Your task to perform on an android device: Where can I buy a nice beach blanket? Image 0: 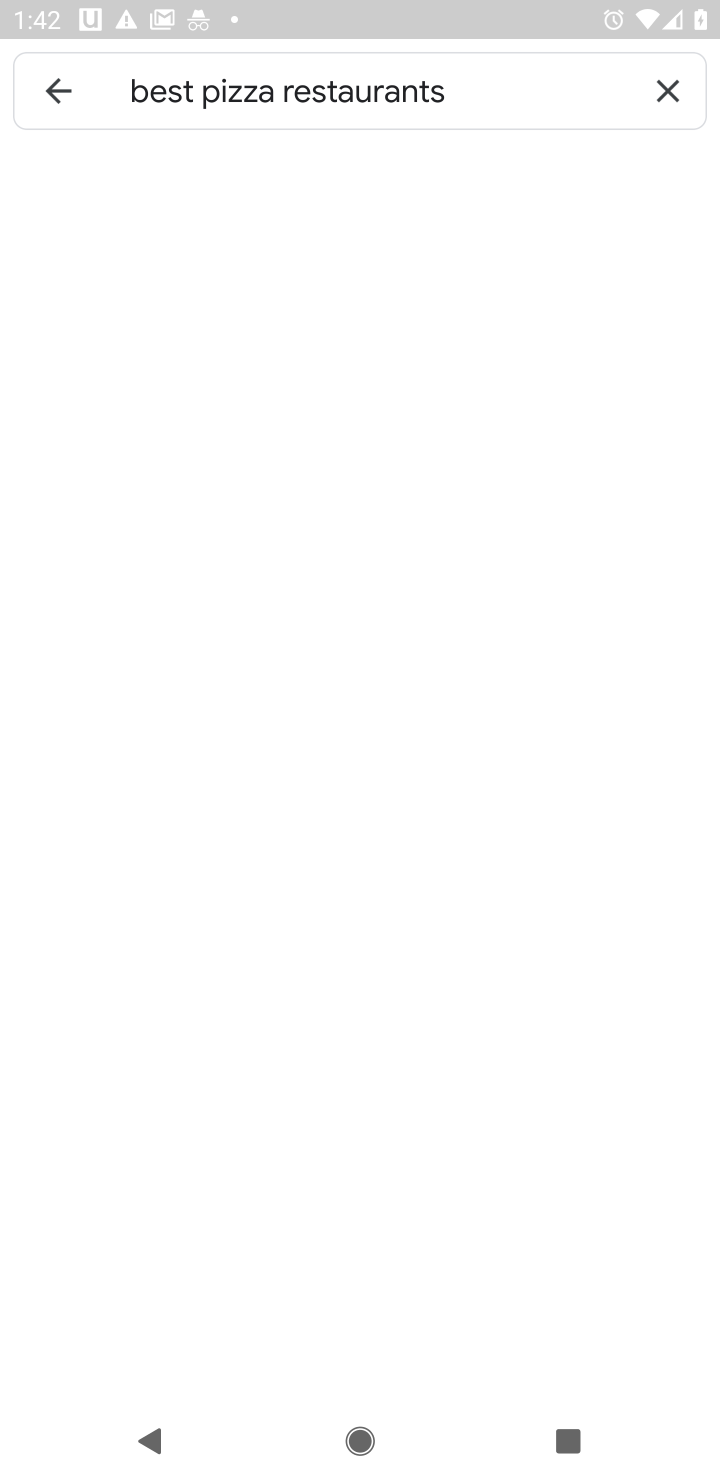
Step 0: press home button
Your task to perform on an android device: Where can I buy a nice beach blanket? Image 1: 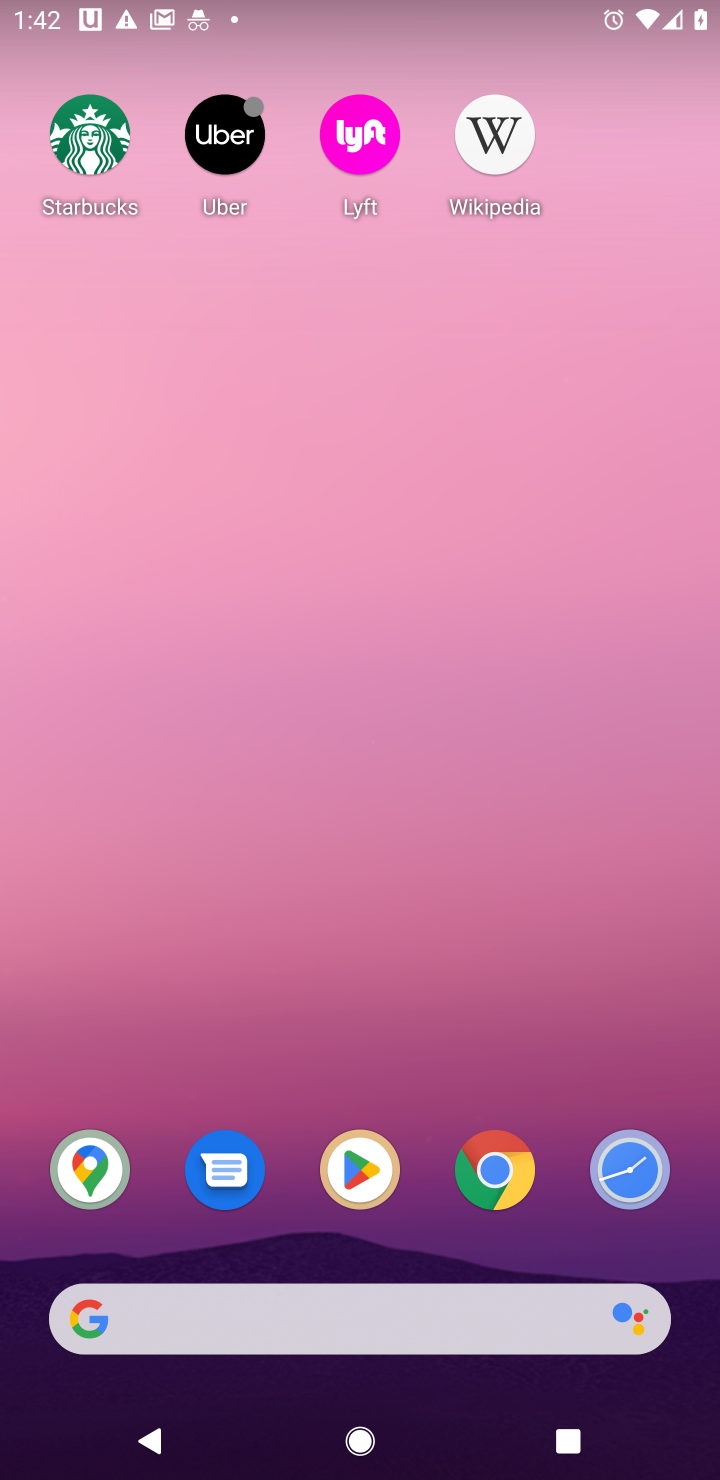
Step 1: click (498, 1183)
Your task to perform on an android device: Where can I buy a nice beach blanket? Image 2: 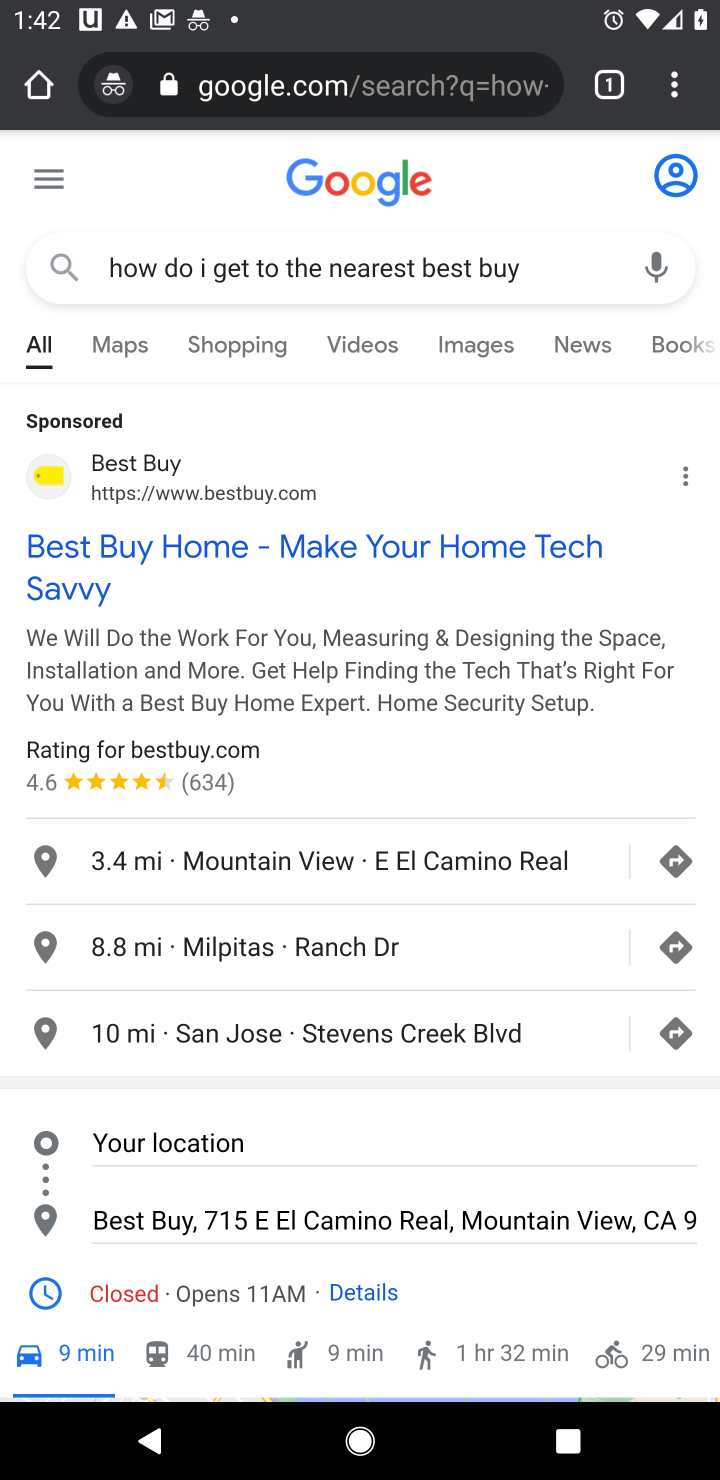
Step 2: click (443, 84)
Your task to perform on an android device: Where can I buy a nice beach blanket? Image 3: 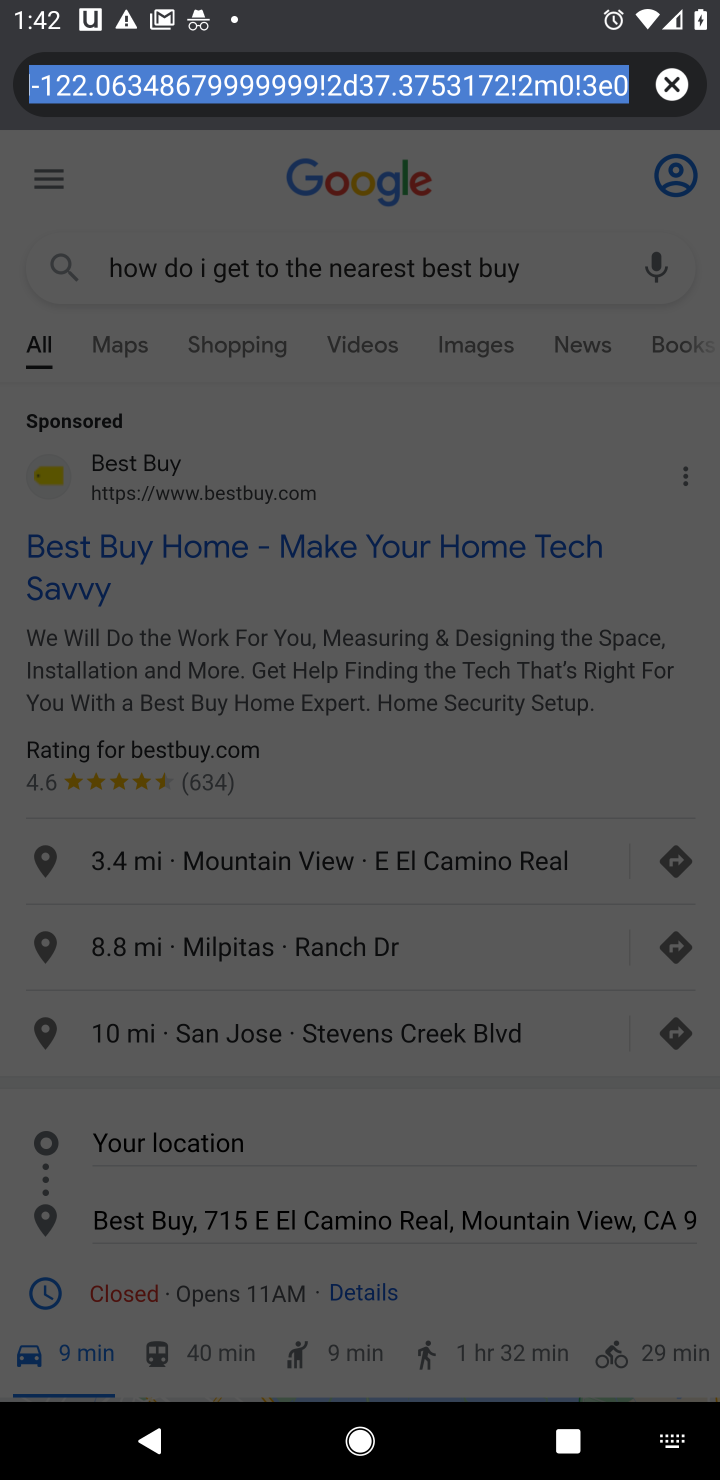
Step 3: click (666, 89)
Your task to perform on an android device: Where can I buy a nice beach blanket? Image 4: 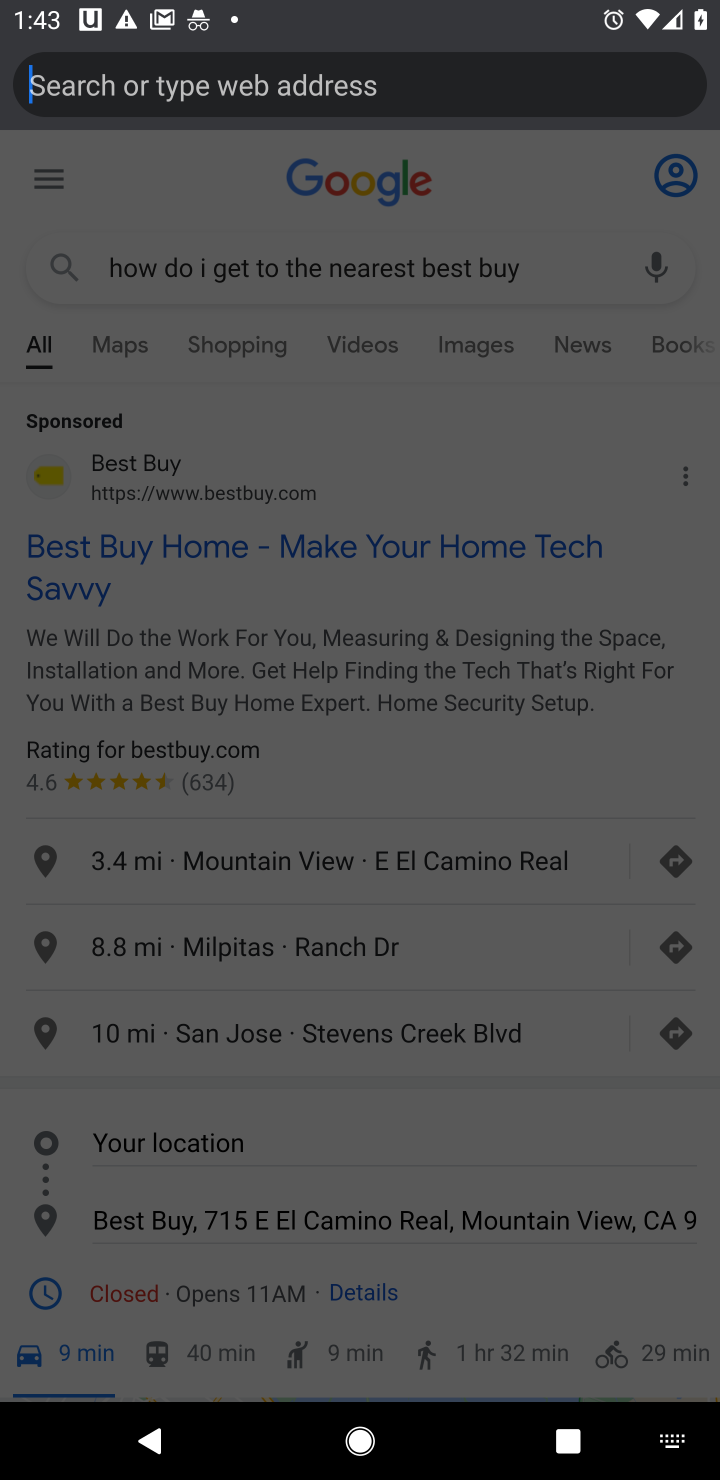
Step 4: type "where can i buy a nice beach blanket"
Your task to perform on an android device: Where can I buy a nice beach blanket? Image 5: 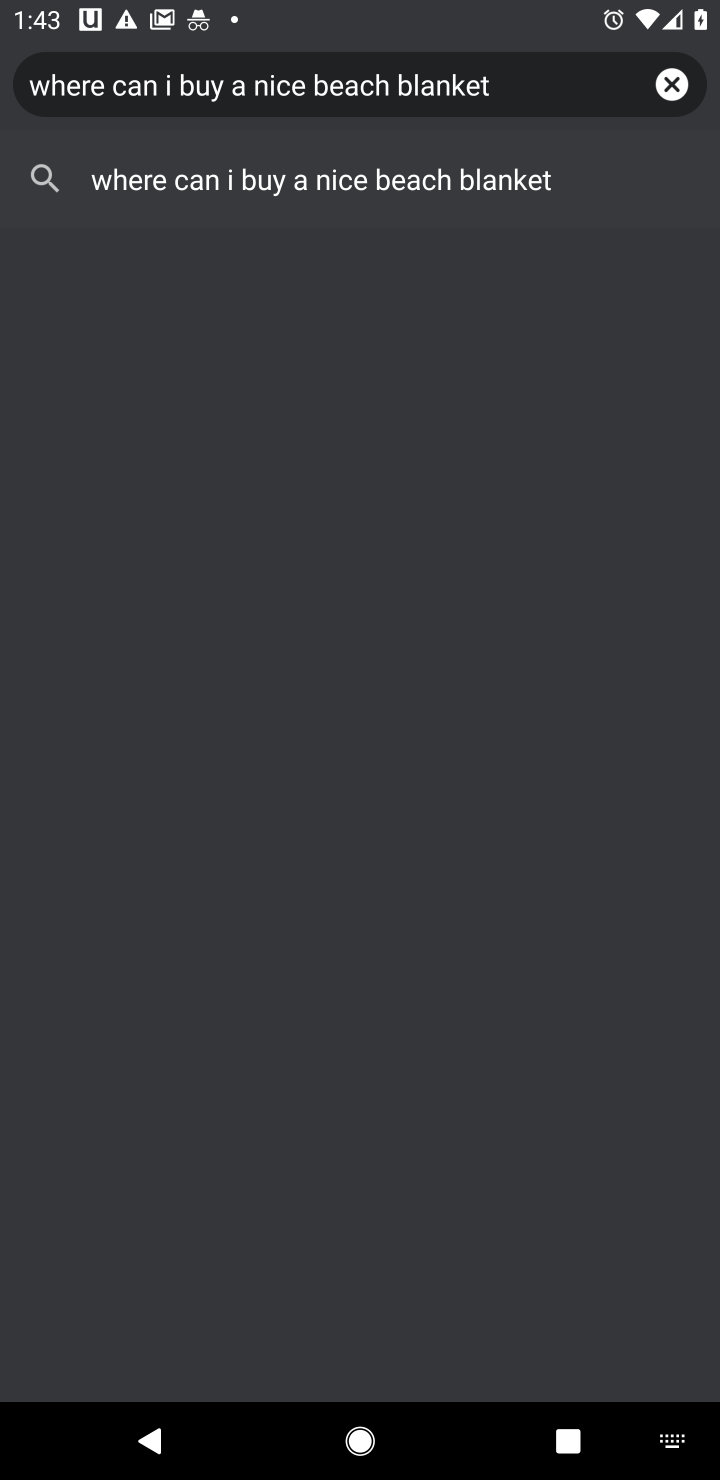
Step 5: type ""
Your task to perform on an android device: Where can I buy a nice beach blanket? Image 6: 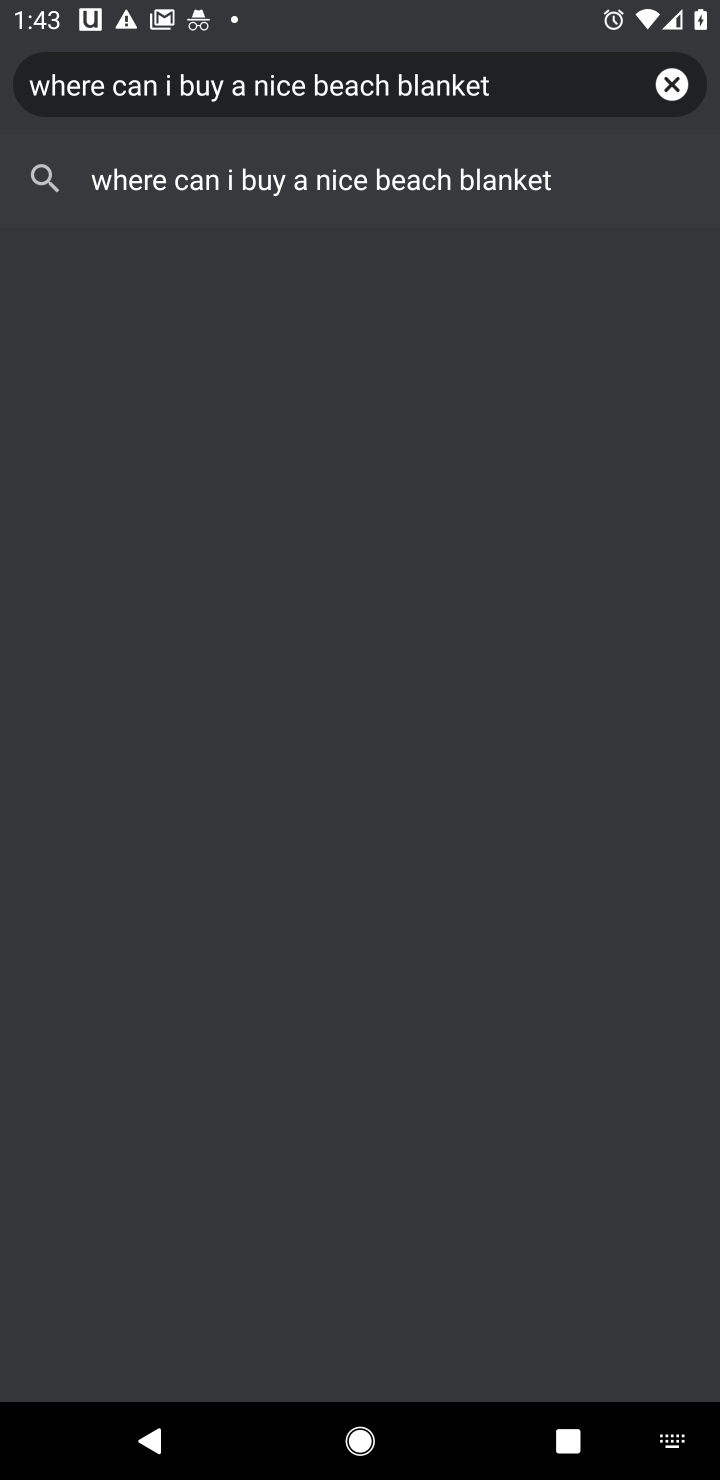
Step 6: click (459, 178)
Your task to perform on an android device: Where can I buy a nice beach blanket? Image 7: 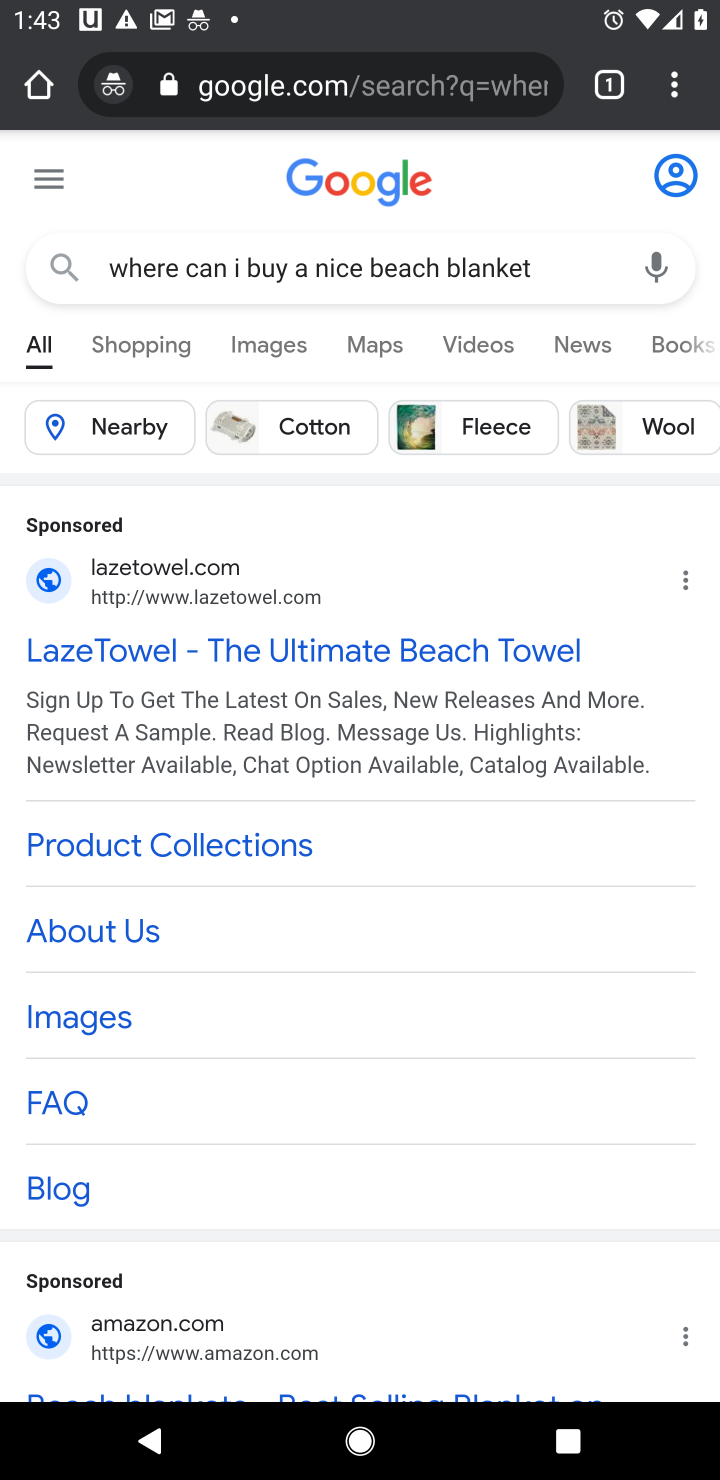
Step 7: click (348, 645)
Your task to perform on an android device: Where can I buy a nice beach blanket? Image 8: 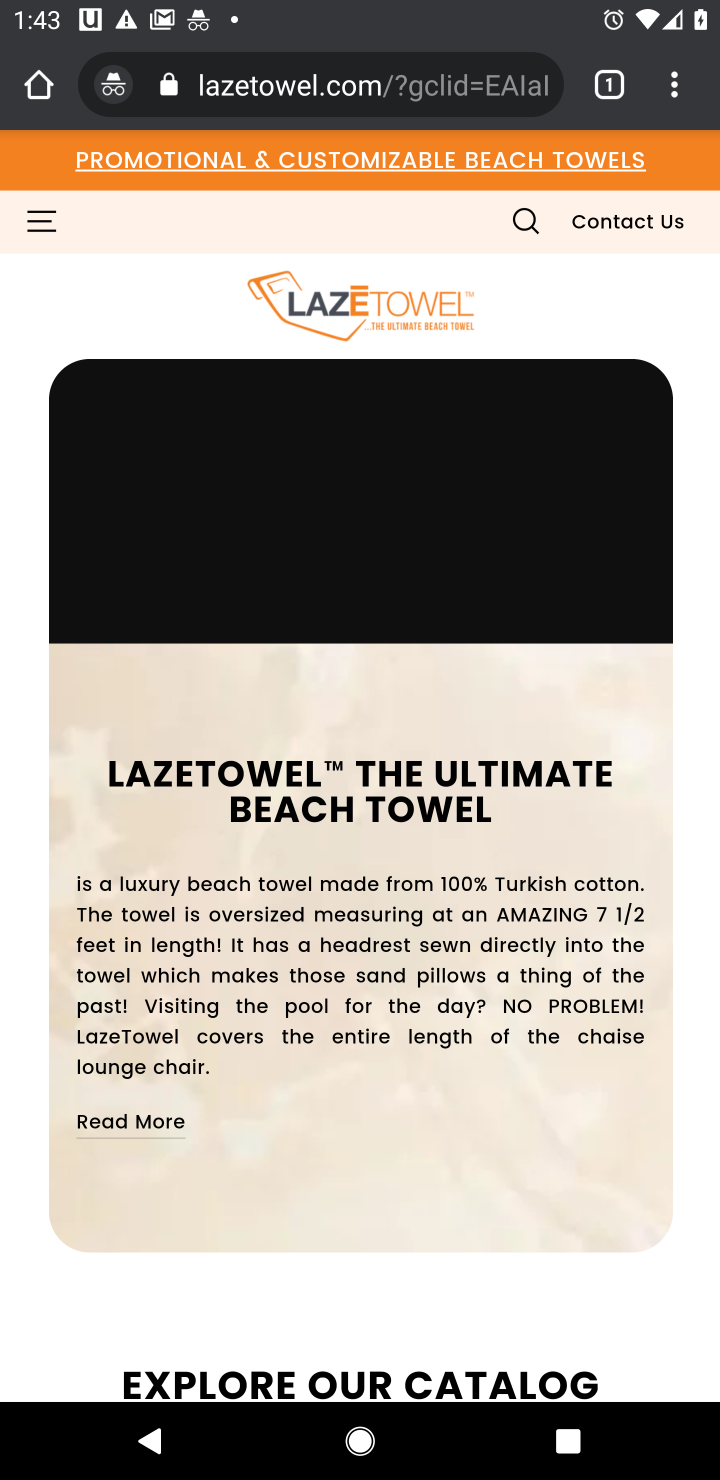
Step 8: task complete